Your task to perform on an android device: Do I have any events this weekend? Image 0: 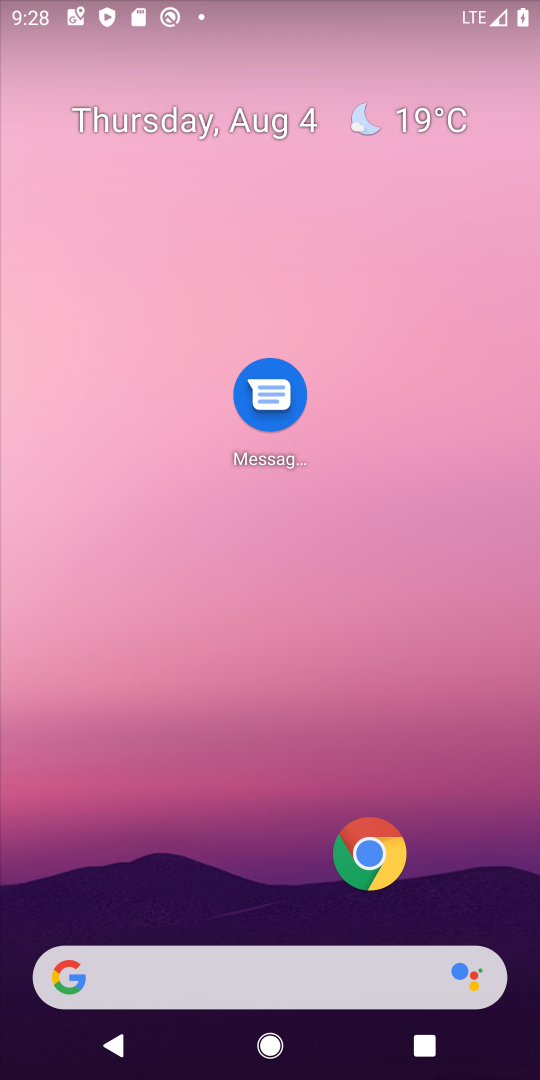
Step 0: drag from (248, 700) to (248, 313)
Your task to perform on an android device: Do I have any events this weekend? Image 1: 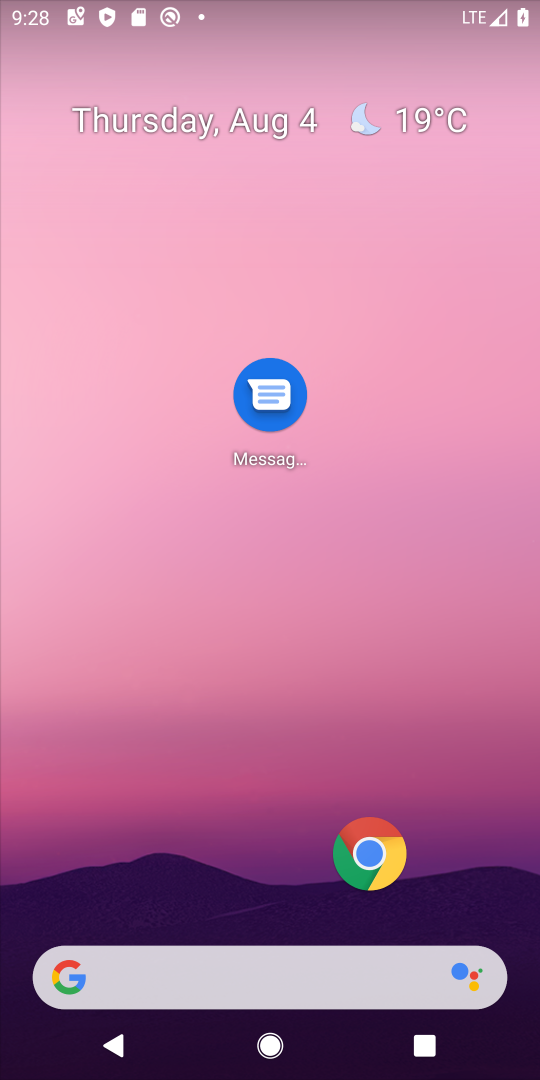
Step 1: drag from (168, 958) to (169, 337)
Your task to perform on an android device: Do I have any events this weekend? Image 2: 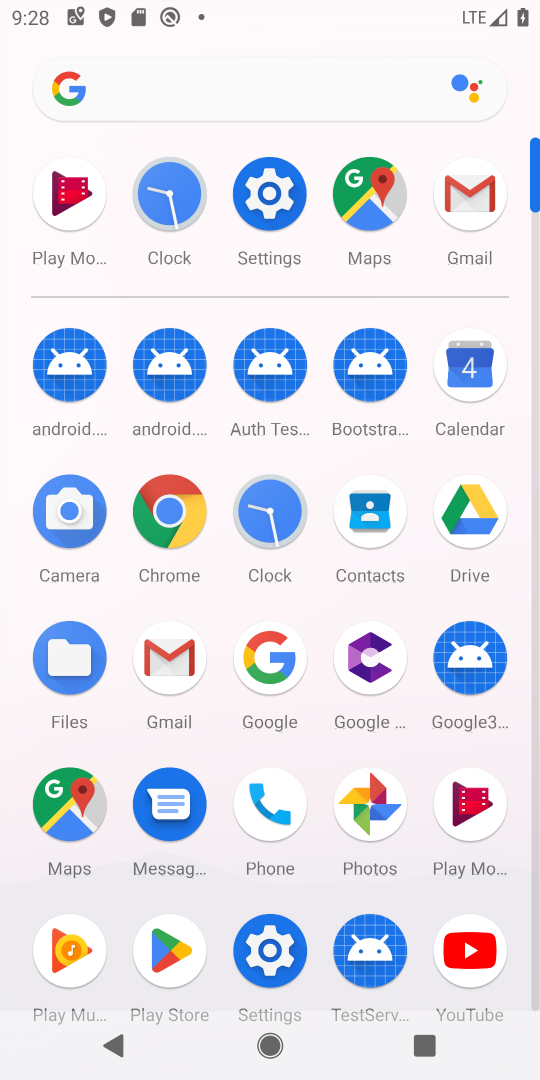
Step 2: click (470, 365)
Your task to perform on an android device: Do I have any events this weekend? Image 3: 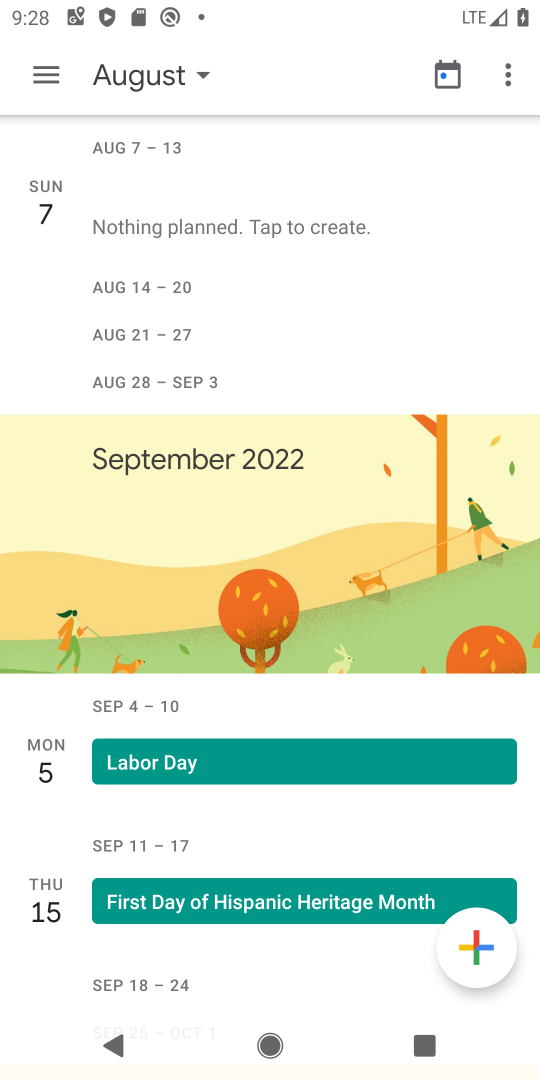
Step 3: click (148, 67)
Your task to perform on an android device: Do I have any events this weekend? Image 4: 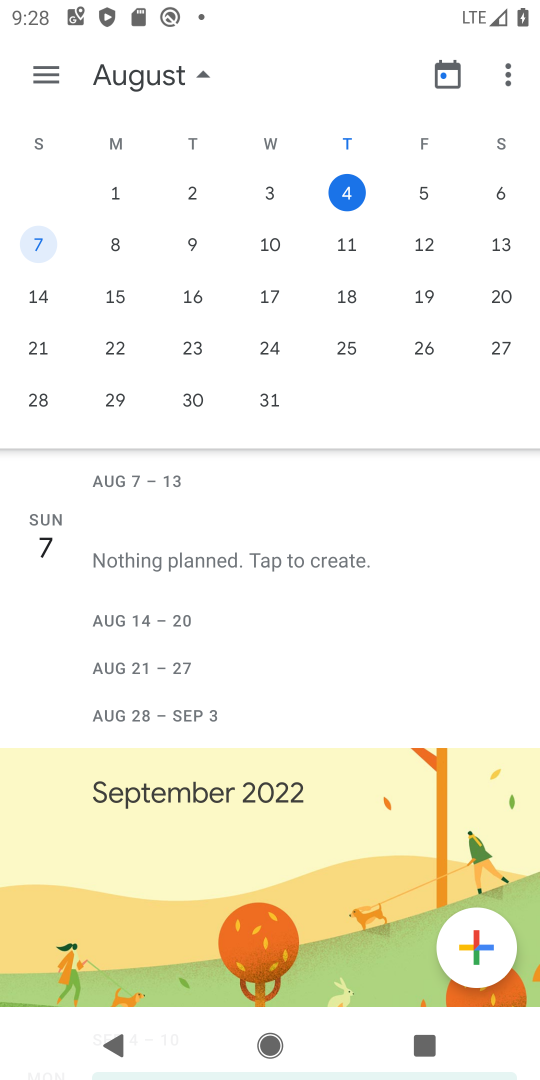
Step 4: click (427, 198)
Your task to perform on an android device: Do I have any events this weekend? Image 5: 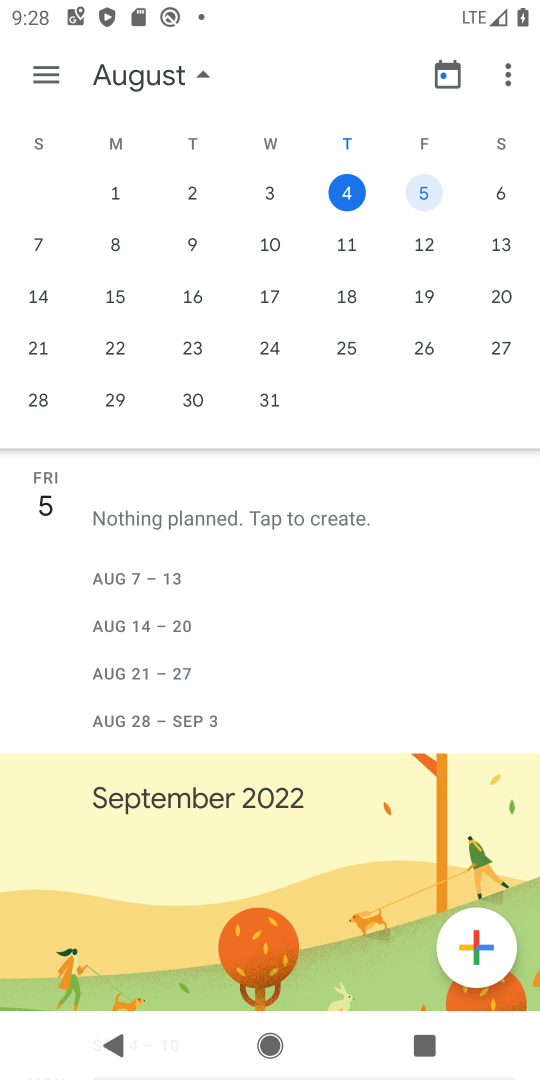
Step 5: click (499, 192)
Your task to perform on an android device: Do I have any events this weekend? Image 6: 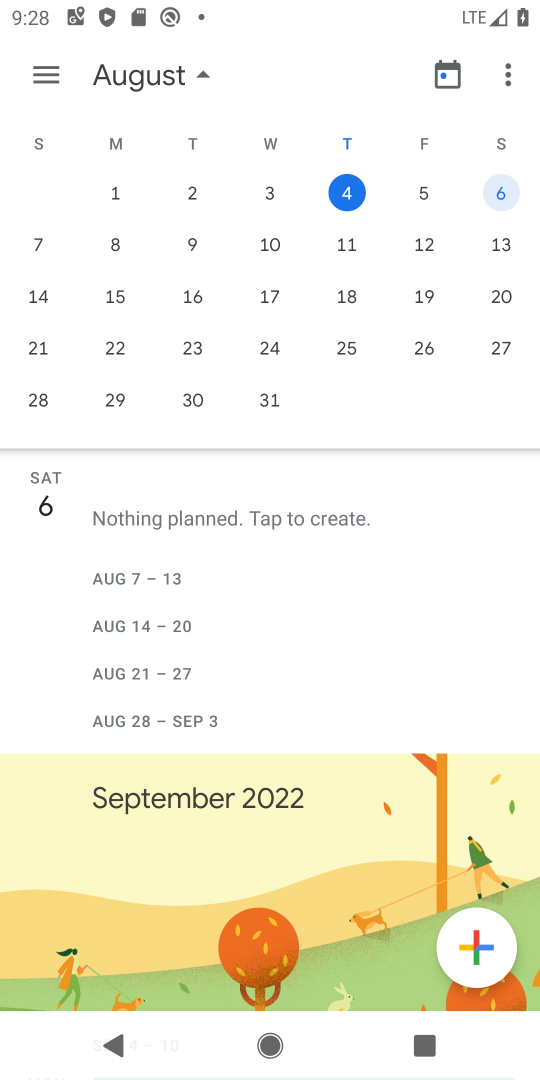
Step 6: click (30, 234)
Your task to perform on an android device: Do I have any events this weekend? Image 7: 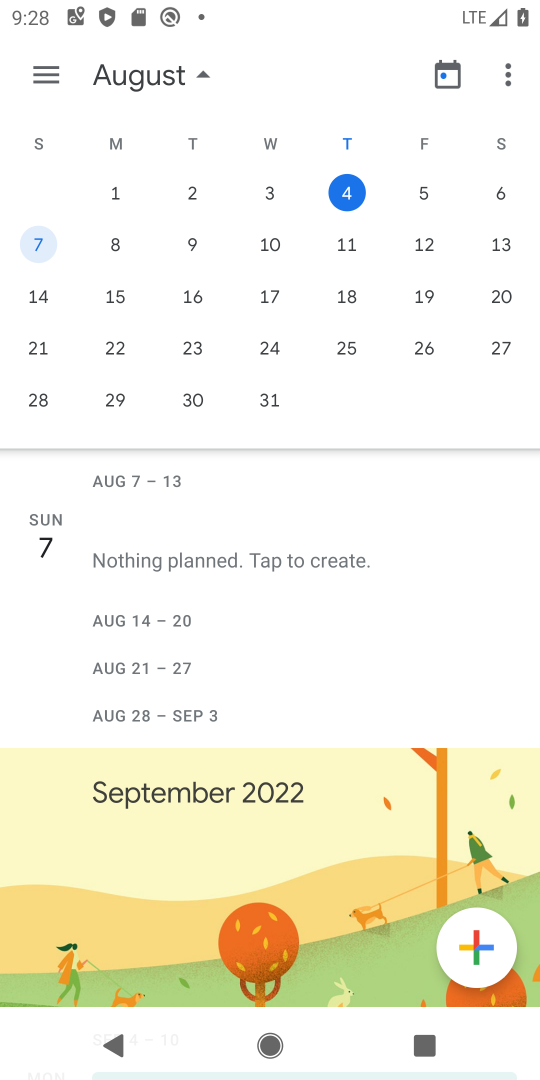
Step 7: task complete